Your task to perform on an android device: turn on improve location accuracy Image 0: 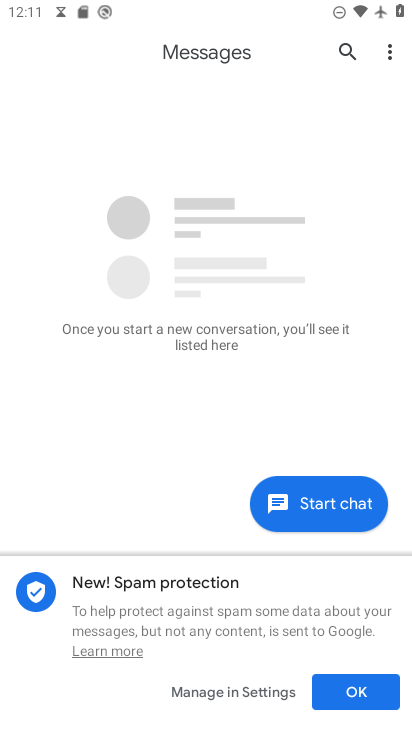
Step 0: press home button
Your task to perform on an android device: turn on improve location accuracy Image 1: 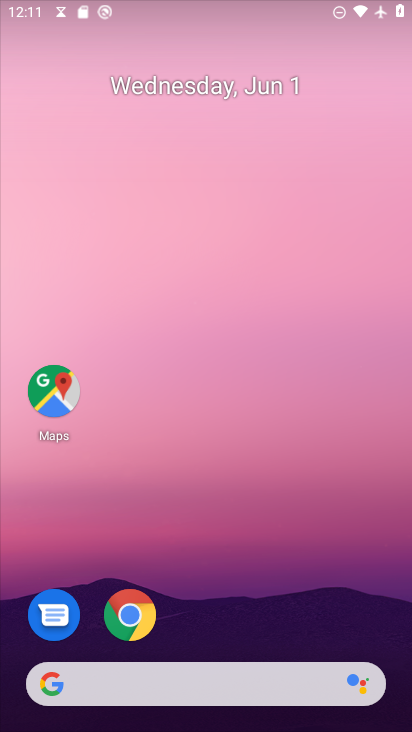
Step 1: drag from (231, 571) to (274, 7)
Your task to perform on an android device: turn on improve location accuracy Image 2: 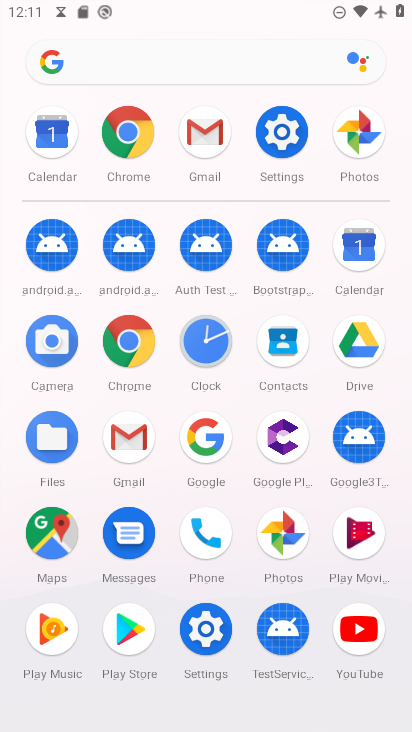
Step 2: click (277, 127)
Your task to perform on an android device: turn on improve location accuracy Image 3: 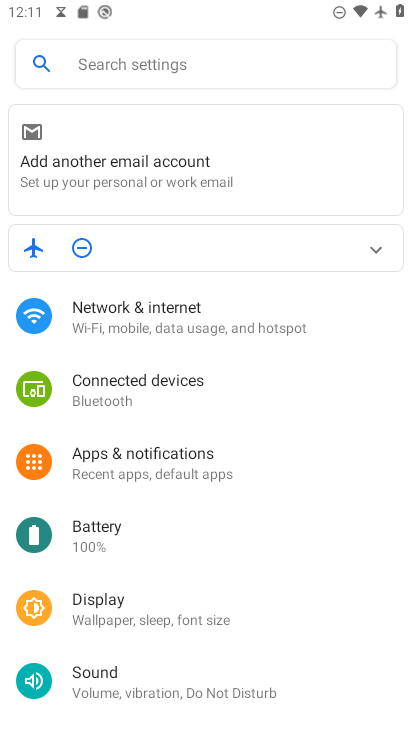
Step 3: drag from (150, 653) to (202, 64)
Your task to perform on an android device: turn on improve location accuracy Image 4: 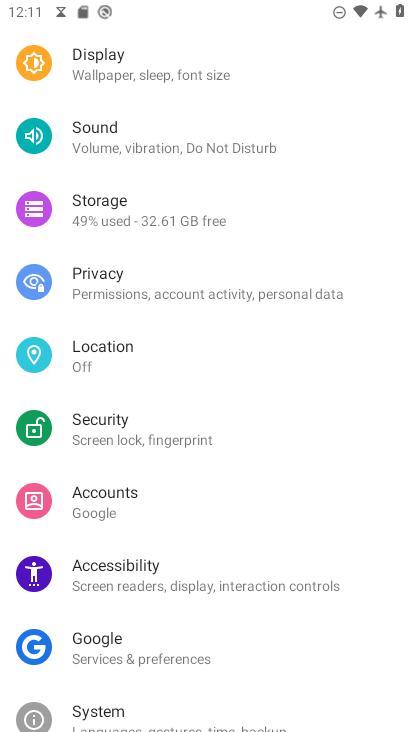
Step 4: click (120, 363)
Your task to perform on an android device: turn on improve location accuracy Image 5: 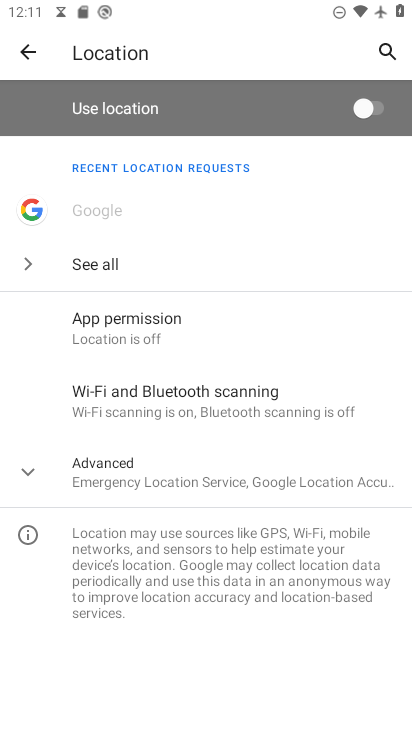
Step 5: click (278, 469)
Your task to perform on an android device: turn on improve location accuracy Image 6: 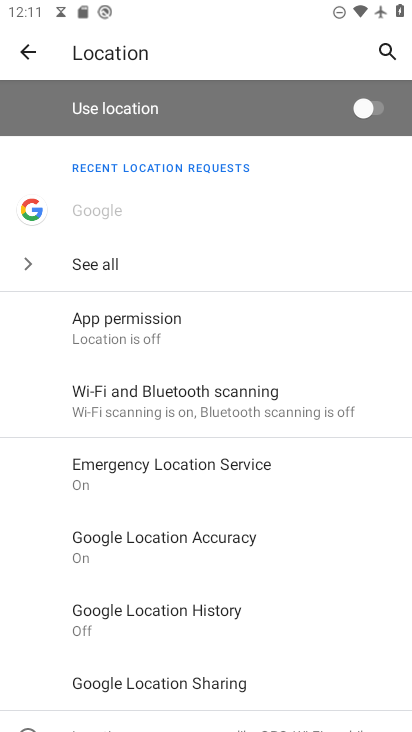
Step 6: click (234, 542)
Your task to perform on an android device: turn on improve location accuracy Image 7: 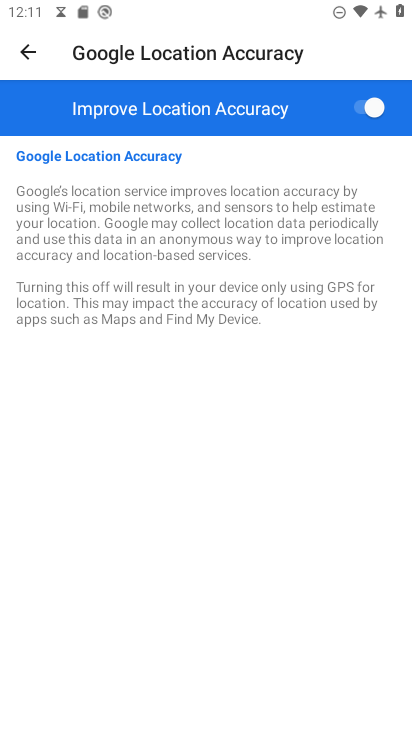
Step 7: task complete